Your task to perform on an android device: move an email to a new category in the gmail app Image 0: 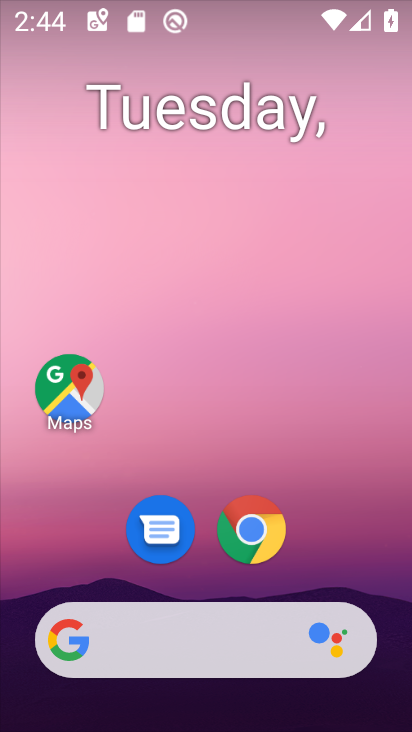
Step 0: drag from (310, 574) to (303, 296)
Your task to perform on an android device: move an email to a new category in the gmail app Image 1: 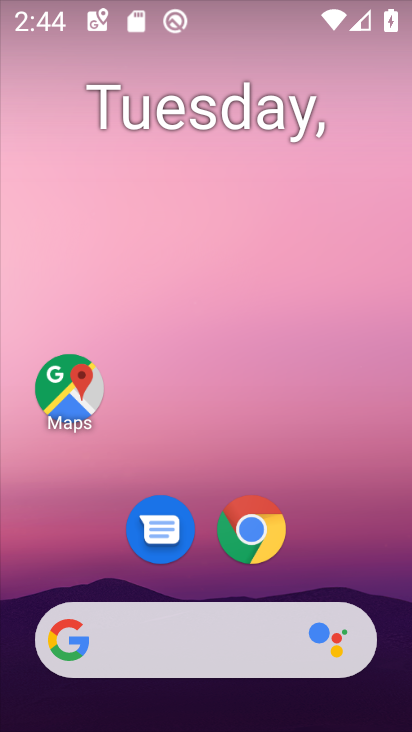
Step 1: drag from (292, 542) to (306, 255)
Your task to perform on an android device: move an email to a new category in the gmail app Image 2: 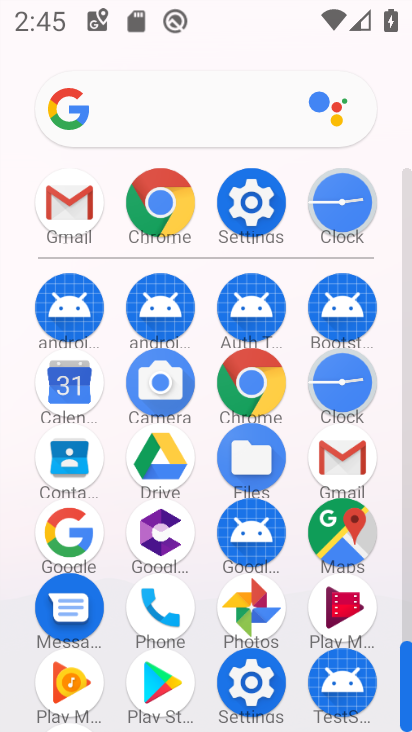
Step 2: click (346, 461)
Your task to perform on an android device: move an email to a new category in the gmail app Image 3: 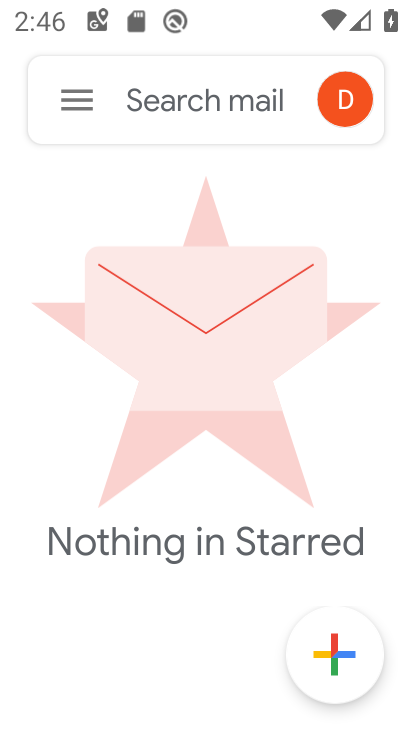
Step 3: click (64, 104)
Your task to perform on an android device: move an email to a new category in the gmail app Image 4: 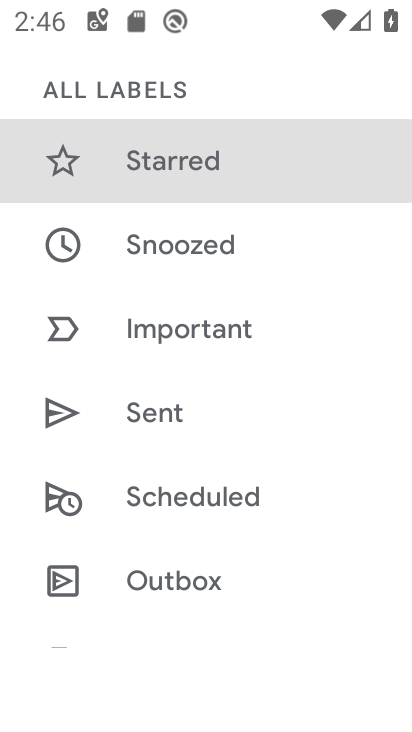
Step 4: drag from (199, 217) to (216, 357)
Your task to perform on an android device: move an email to a new category in the gmail app Image 5: 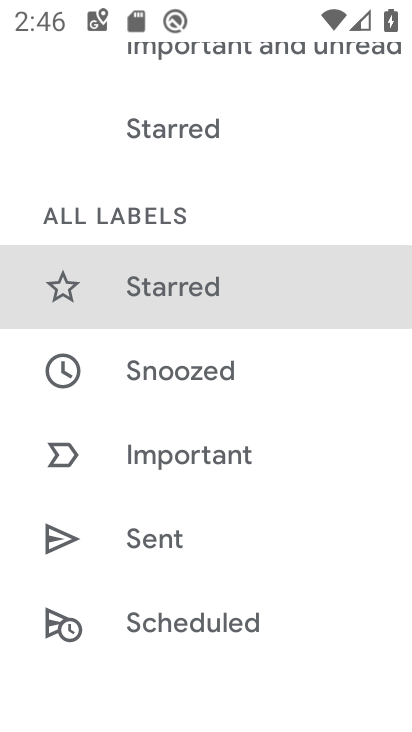
Step 5: click (212, 367)
Your task to perform on an android device: move an email to a new category in the gmail app Image 6: 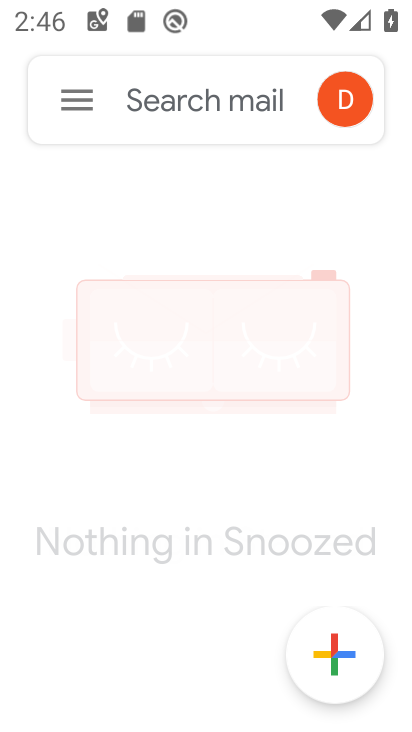
Step 6: drag from (214, 153) to (233, 210)
Your task to perform on an android device: move an email to a new category in the gmail app Image 7: 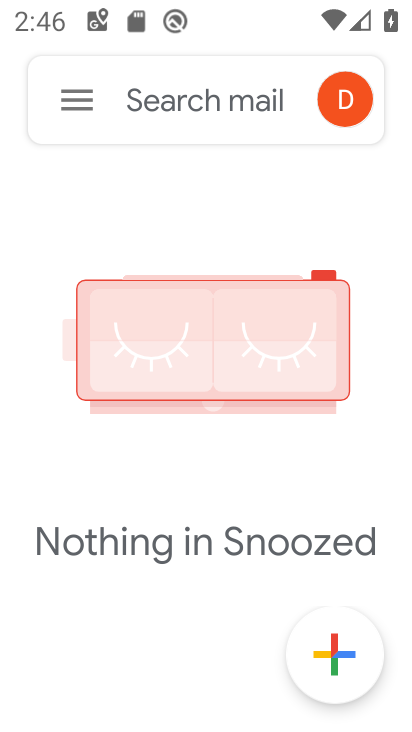
Step 7: click (70, 101)
Your task to perform on an android device: move an email to a new category in the gmail app Image 8: 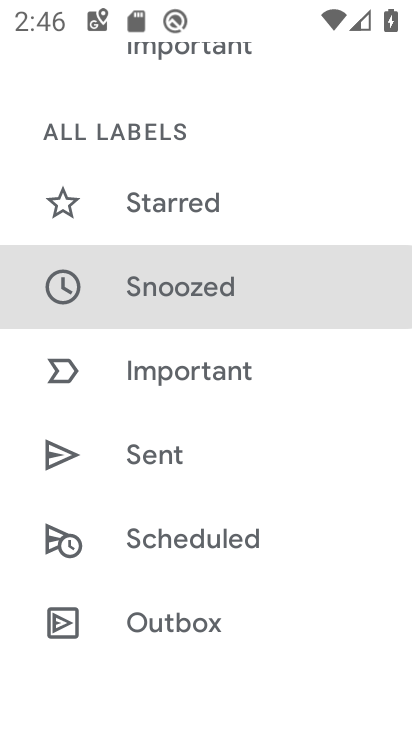
Step 8: drag from (209, 577) to (243, 178)
Your task to perform on an android device: move an email to a new category in the gmail app Image 9: 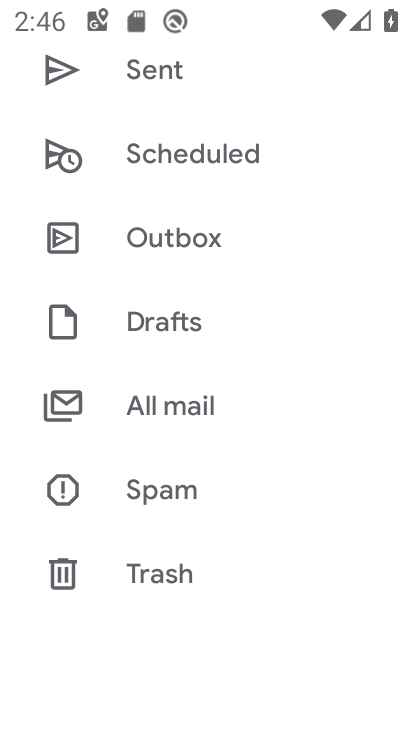
Step 9: click (203, 407)
Your task to perform on an android device: move an email to a new category in the gmail app Image 10: 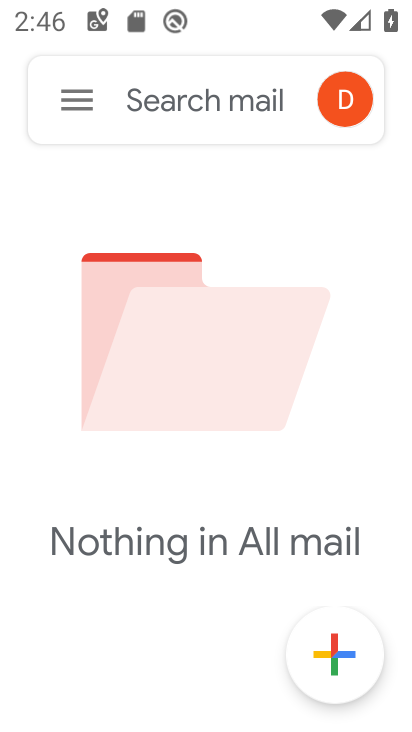
Step 10: task complete